Your task to perform on an android device: Open the calendar and show me this week's events Image 0: 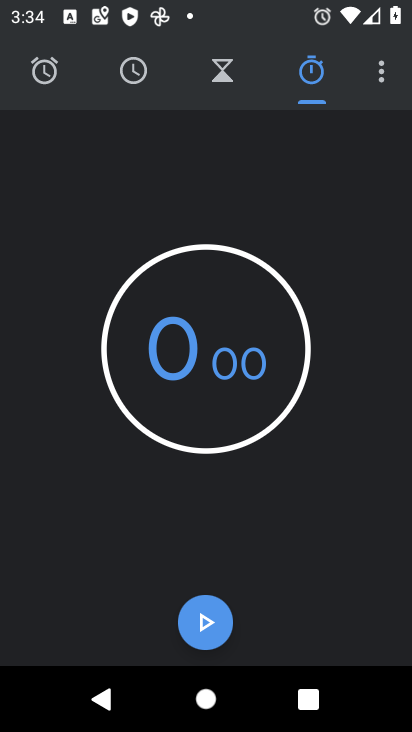
Step 0: press home button
Your task to perform on an android device: Open the calendar and show me this week's events Image 1: 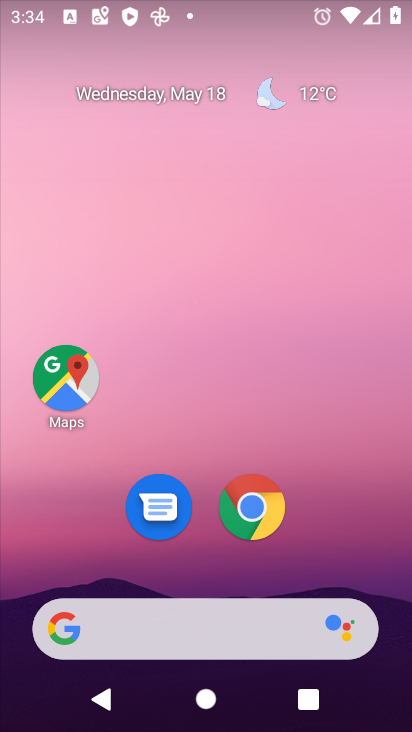
Step 1: drag from (398, 597) to (328, 65)
Your task to perform on an android device: Open the calendar and show me this week's events Image 2: 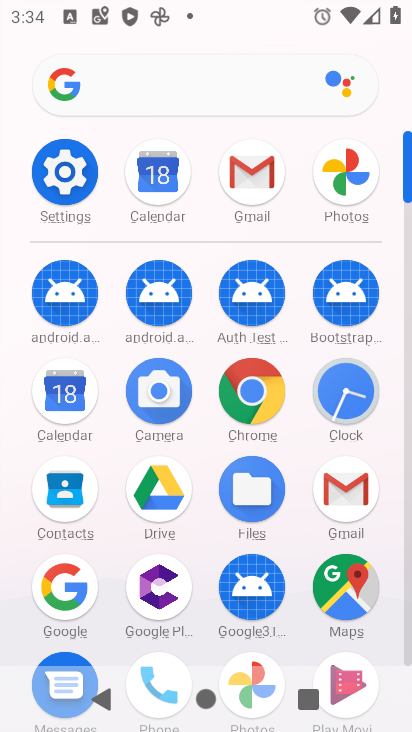
Step 2: click (406, 646)
Your task to perform on an android device: Open the calendar and show me this week's events Image 3: 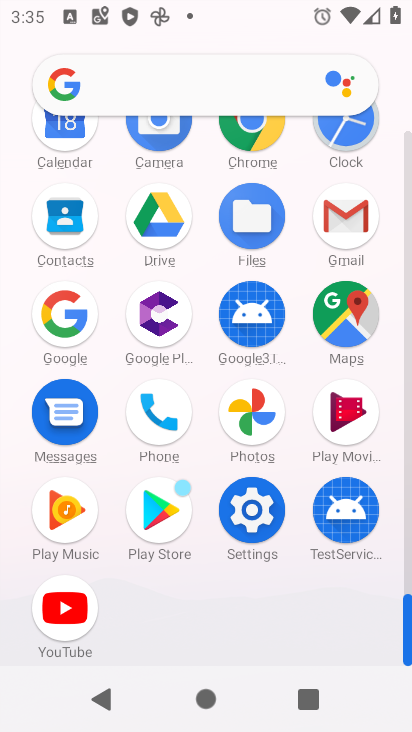
Step 3: click (57, 133)
Your task to perform on an android device: Open the calendar and show me this week's events Image 4: 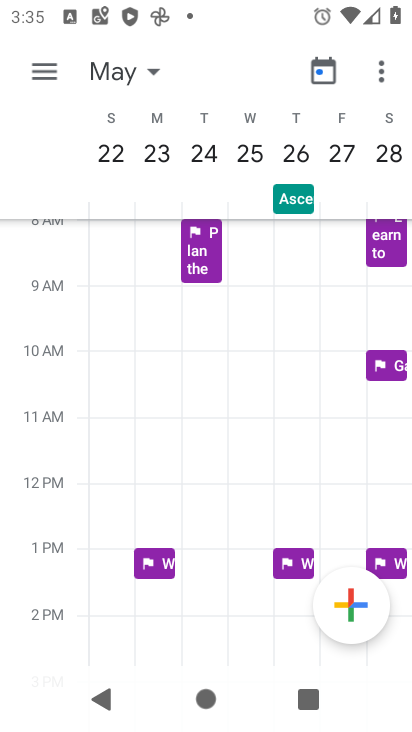
Step 4: click (145, 70)
Your task to perform on an android device: Open the calendar and show me this week's events Image 5: 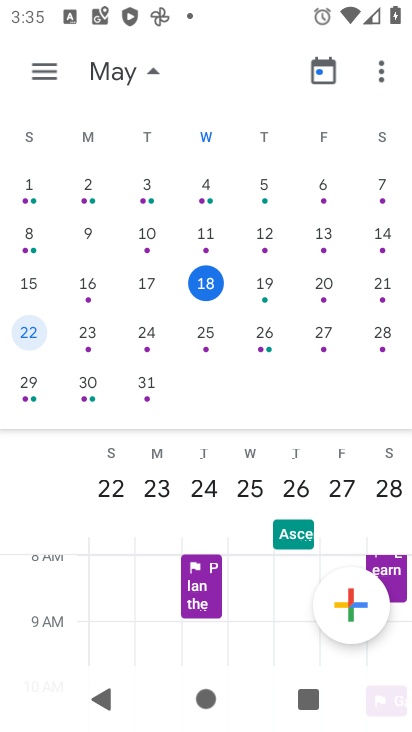
Step 5: click (204, 280)
Your task to perform on an android device: Open the calendar and show me this week's events Image 6: 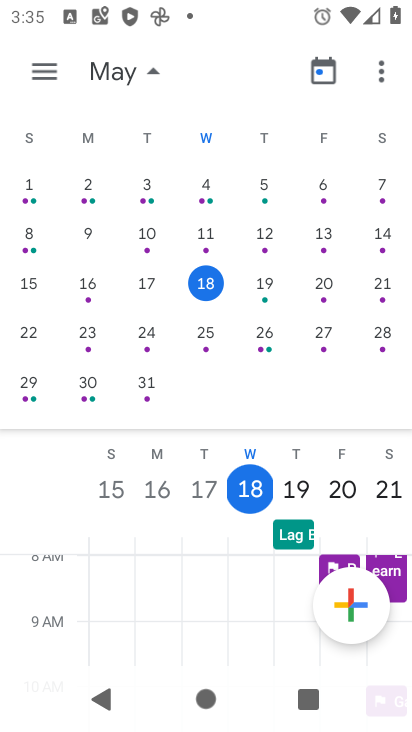
Step 6: task complete